Your task to perform on an android device: check the backup settings in the google photos Image 0: 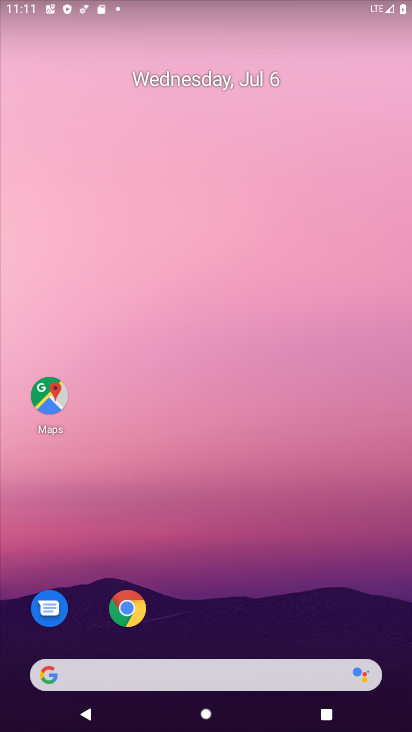
Step 0: drag from (186, 655) to (308, 92)
Your task to perform on an android device: check the backup settings in the google photos Image 1: 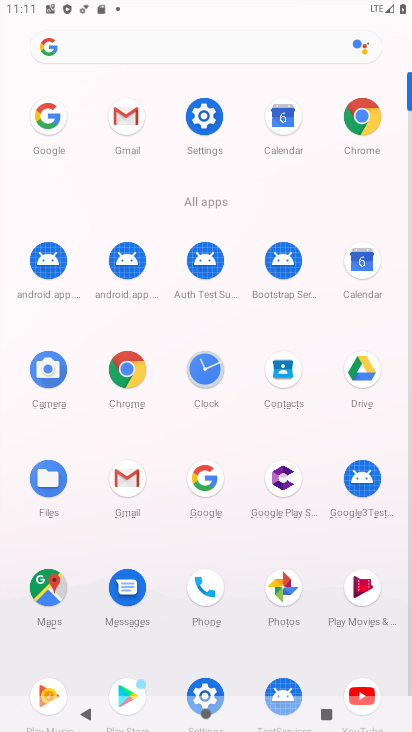
Step 1: click (288, 596)
Your task to perform on an android device: check the backup settings in the google photos Image 2: 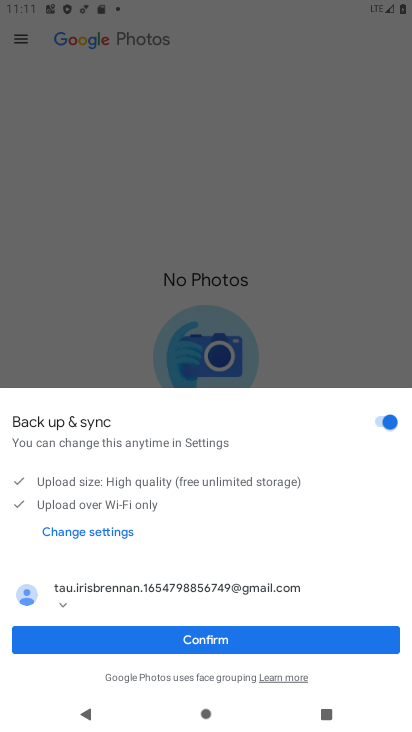
Step 2: click (205, 640)
Your task to perform on an android device: check the backup settings in the google photos Image 3: 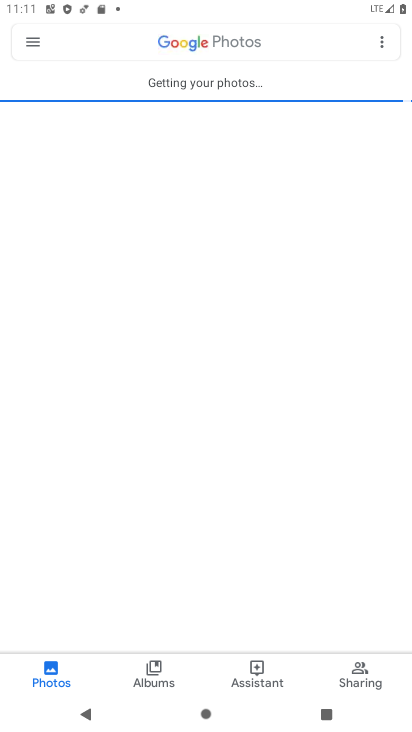
Step 3: click (29, 37)
Your task to perform on an android device: check the backup settings in the google photos Image 4: 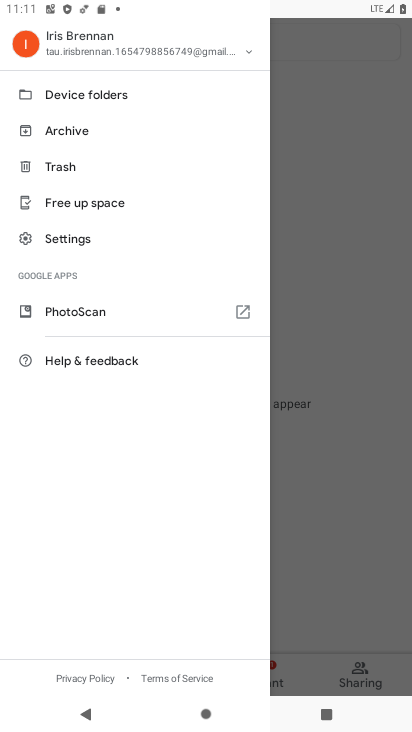
Step 4: click (58, 239)
Your task to perform on an android device: check the backup settings in the google photos Image 5: 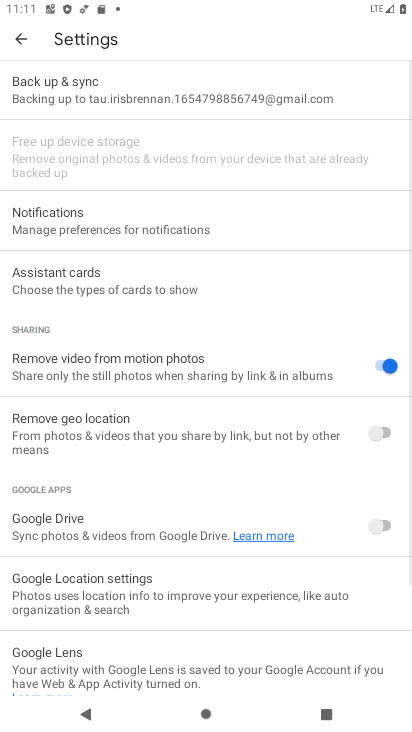
Step 5: click (62, 93)
Your task to perform on an android device: check the backup settings in the google photos Image 6: 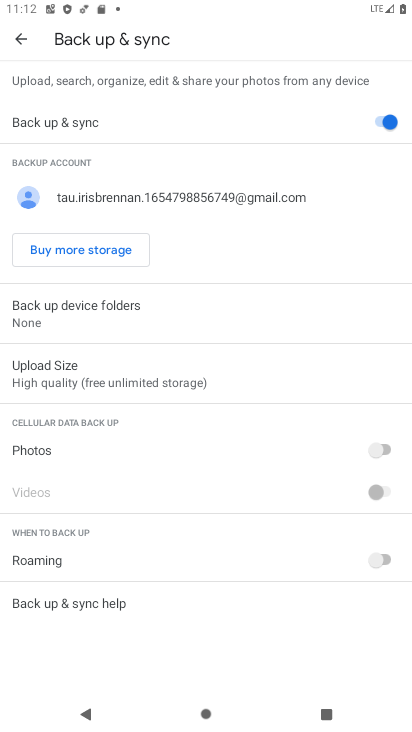
Step 6: task complete